Your task to perform on an android device: Go to Wikipedia Image 0: 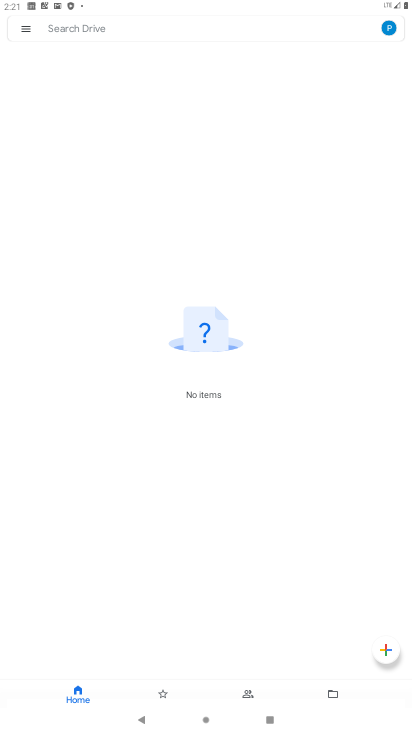
Step 0: press home button
Your task to perform on an android device: Go to Wikipedia Image 1: 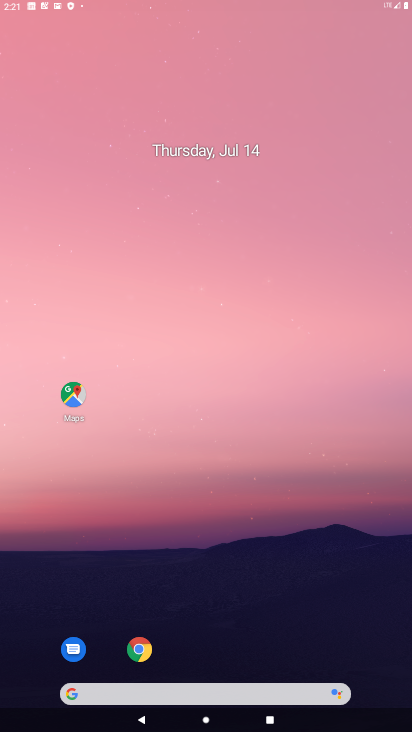
Step 1: drag from (385, 678) to (318, 19)
Your task to perform on an android device: Go to Wikipedia Image 2: 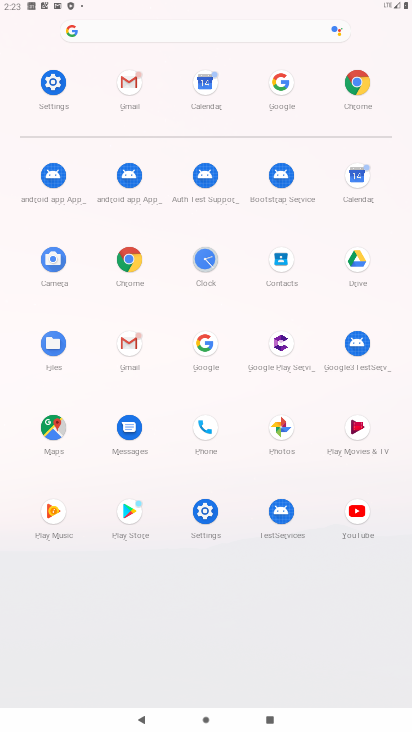
Step 2: click (202, 343)
Your task to perform on an android device: Go to Wikipedia Image 3: 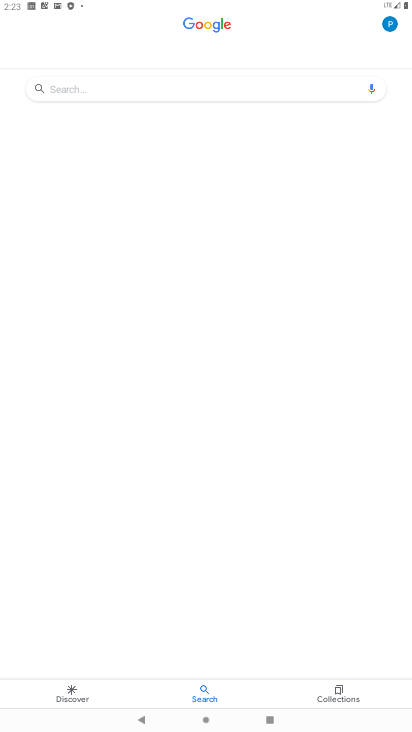
Step 3: click (124, 82)
Your task to perform on an android device: Go to Wikipedia Image 4: 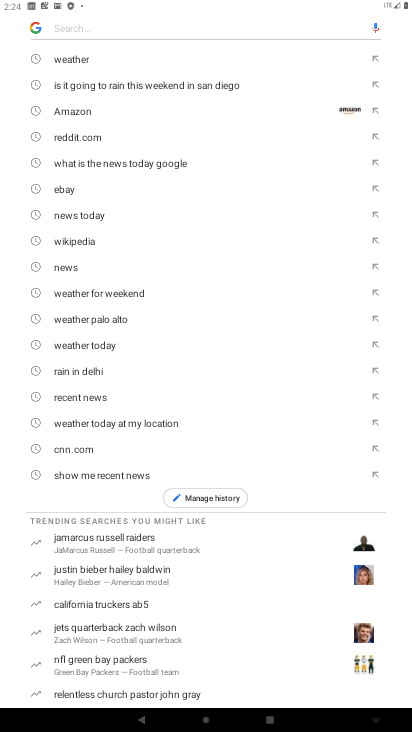
Step 4: click (86, 243)
Your task to perform on an android device: Go to Wikipedia Image 5: 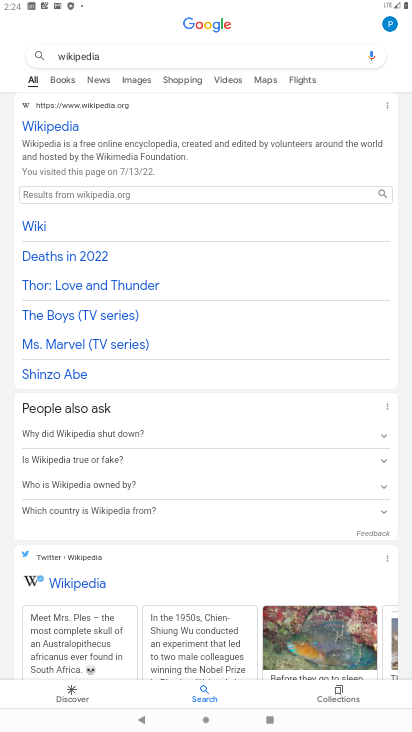
Step 5: task complete